Your task to perform on an android device: When is my next meeting? Image 0: 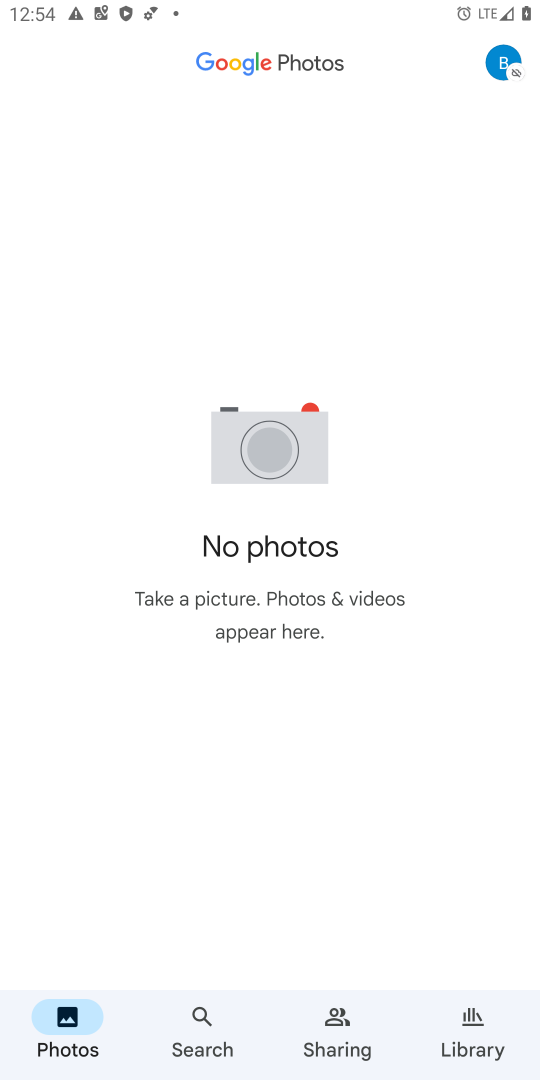
Step 0: press home button
Your task to perform on an android device: When is my next meeting? Image 1: 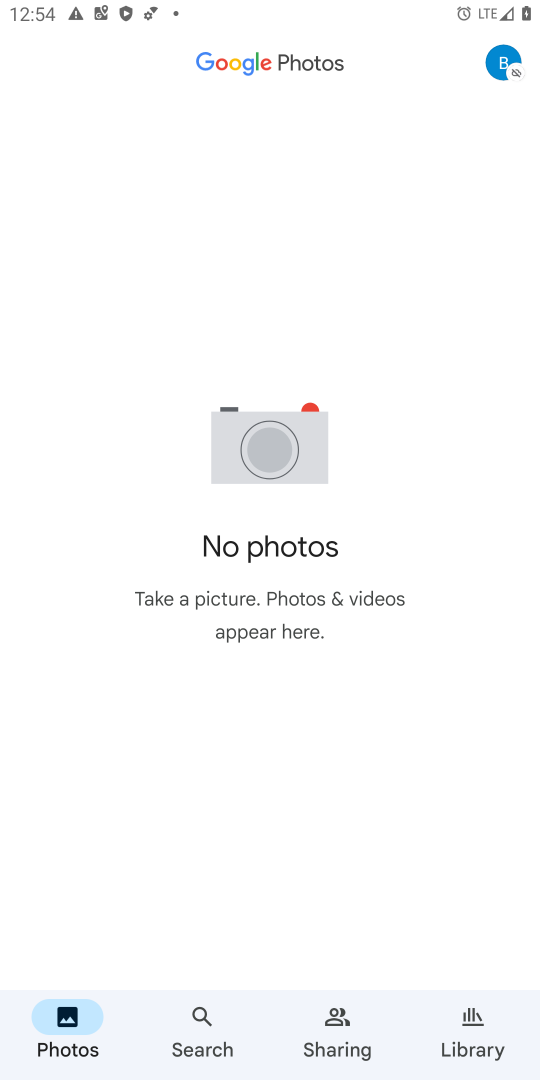
Step 1: press home button
Your task to perform on an android device: When is my next meeting? Image 2: 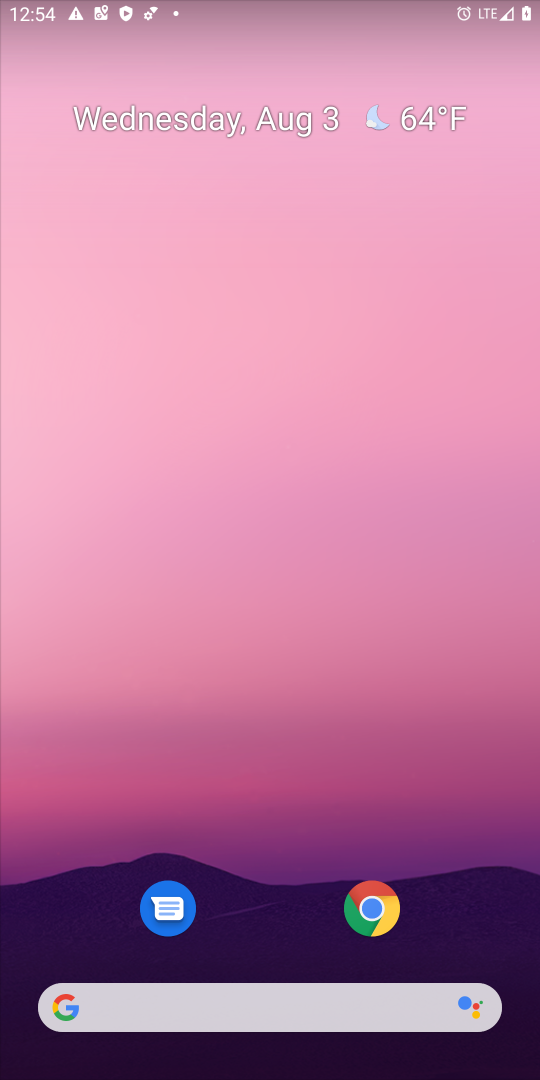
Step 2: drag from (309, 587) to (379, 5)
Your task to perform on an android device: When is my next meeting? Image 3: 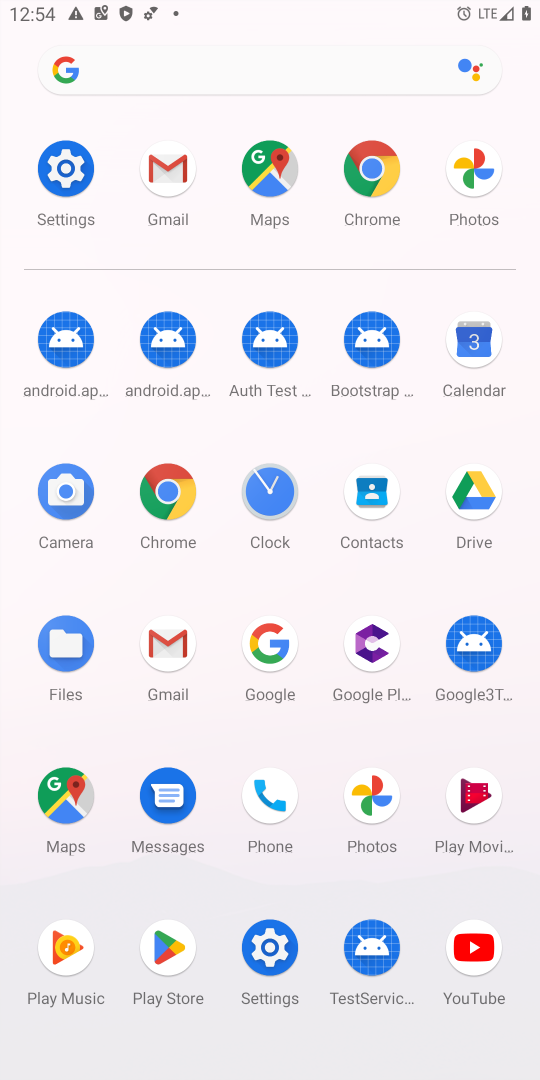
Step 3: click (468, 355)
Your task to perform on an android device: When is my next meeting? Image 4: 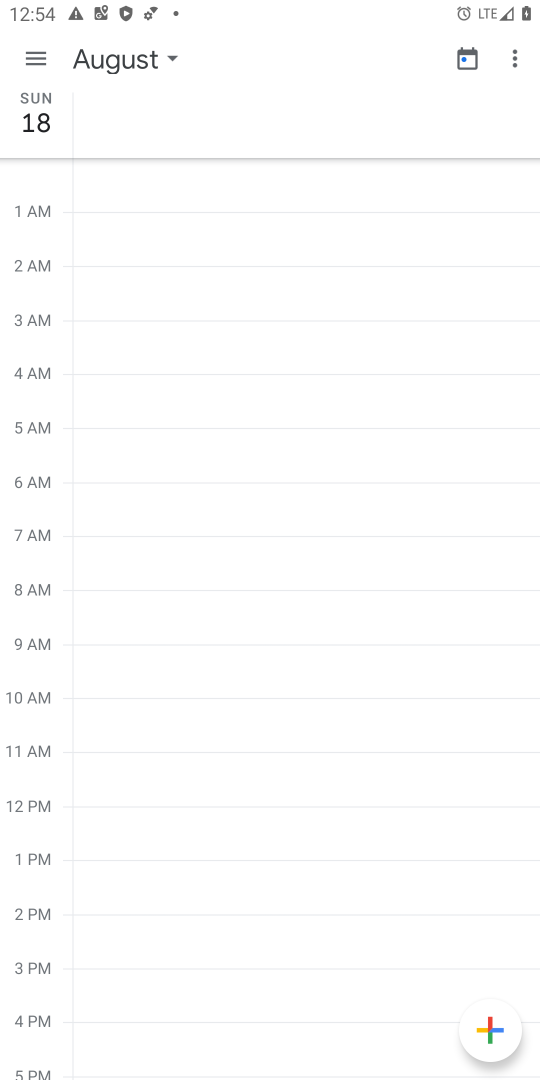
Step 4: task complete